Your task to perform on an android device: Search for a new highlighter Image 0: 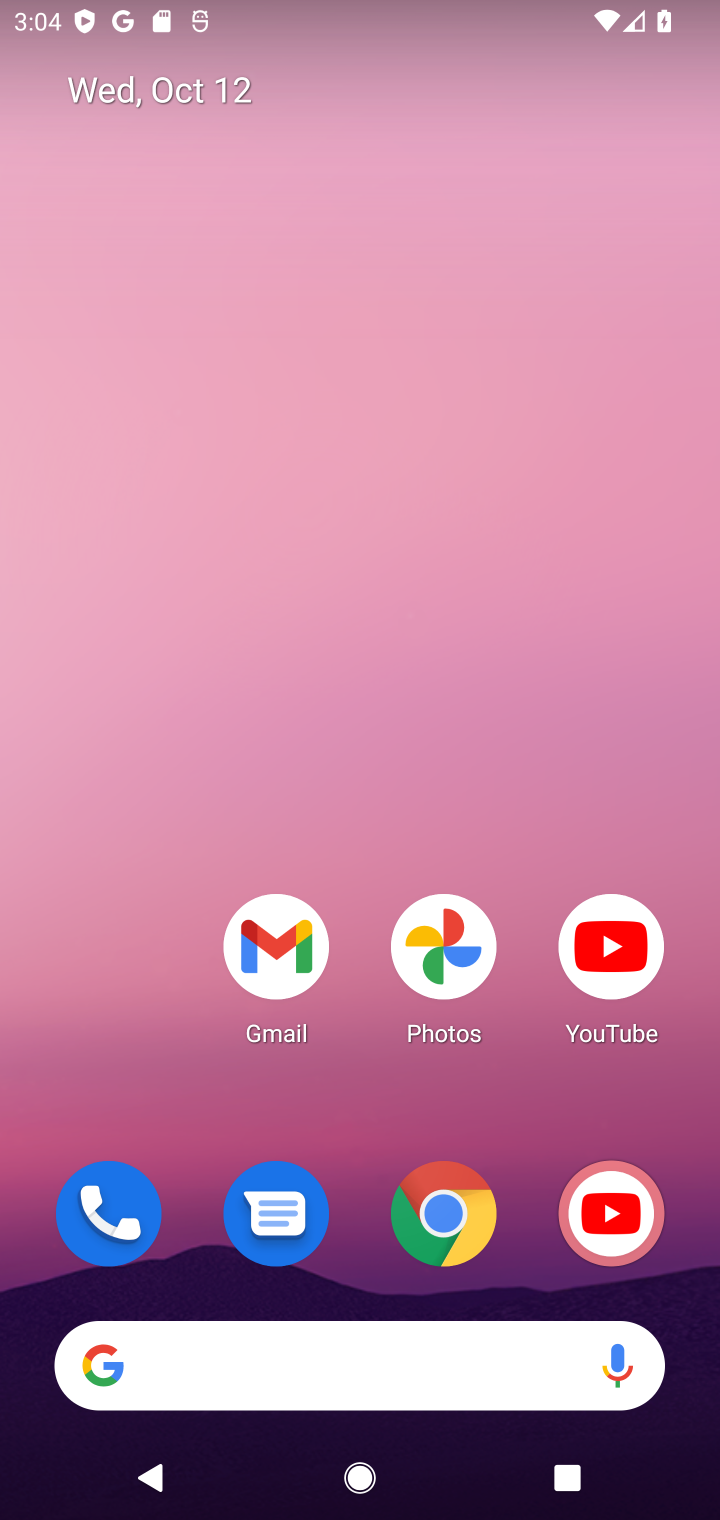
Step 0: click (360, 1393)
Your task to perform on an android device: Search for a new highlighter Image 1: 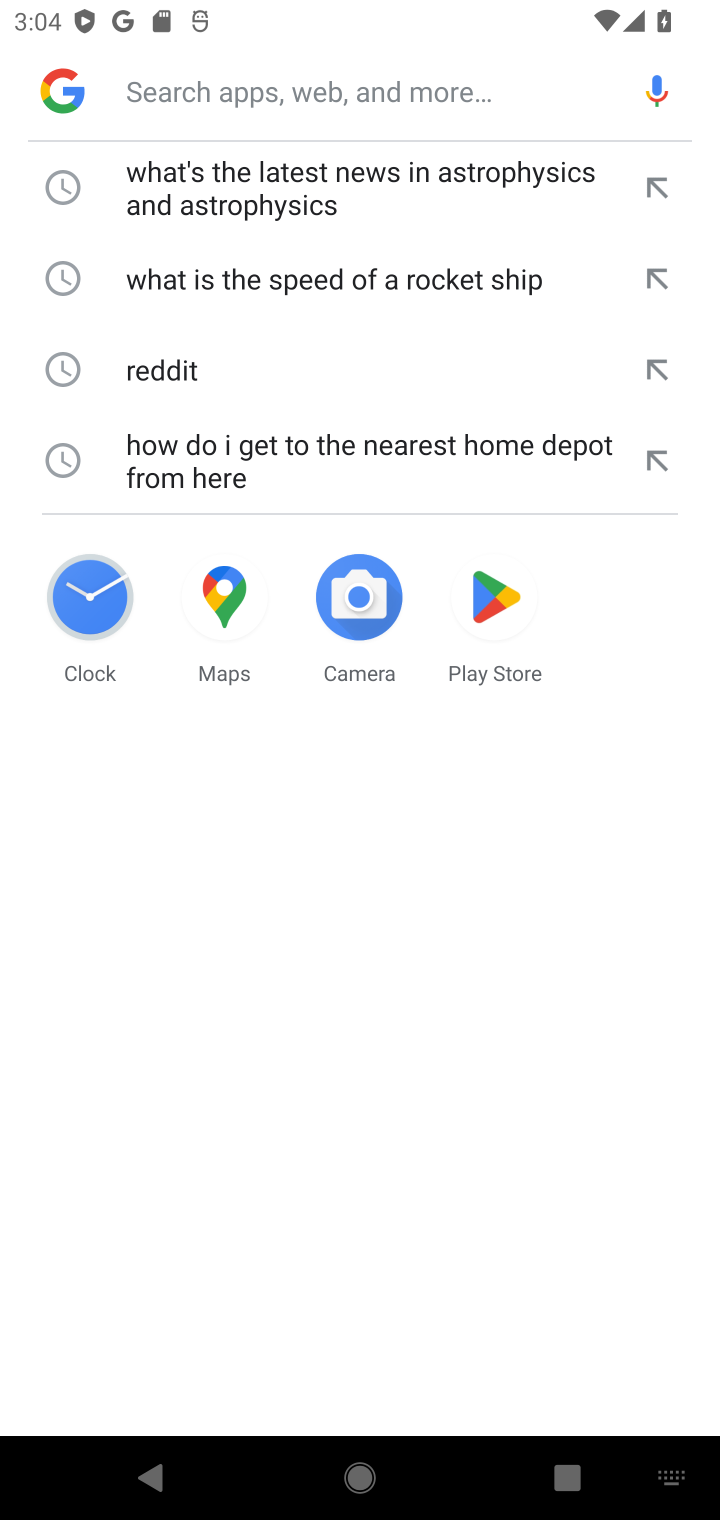
Step 1: click (172, 101)
Your task to perform on an android device: Search for a new highlighter Image 2: 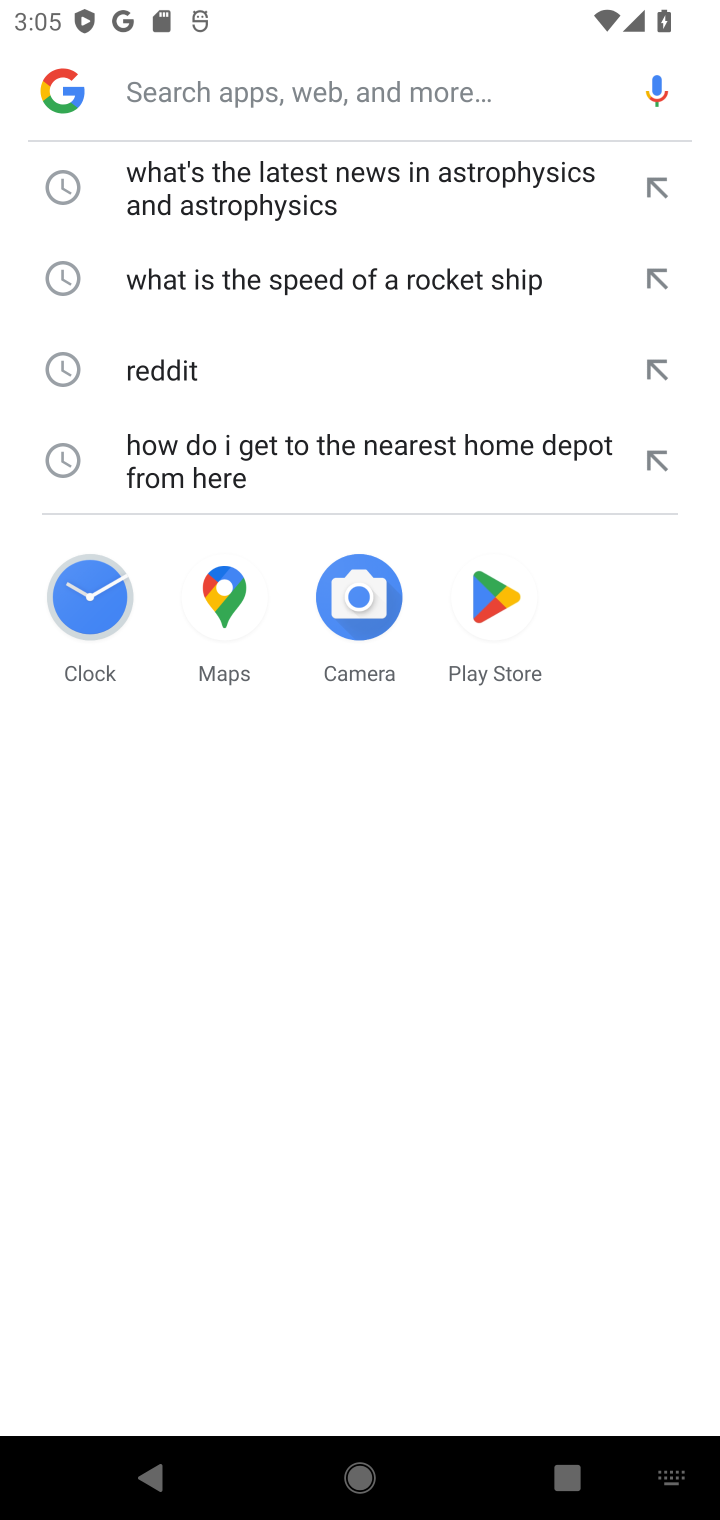
Step 2: type "new highlighter"
Your task to perform on an android device: Search for a new highlighter Image 3: 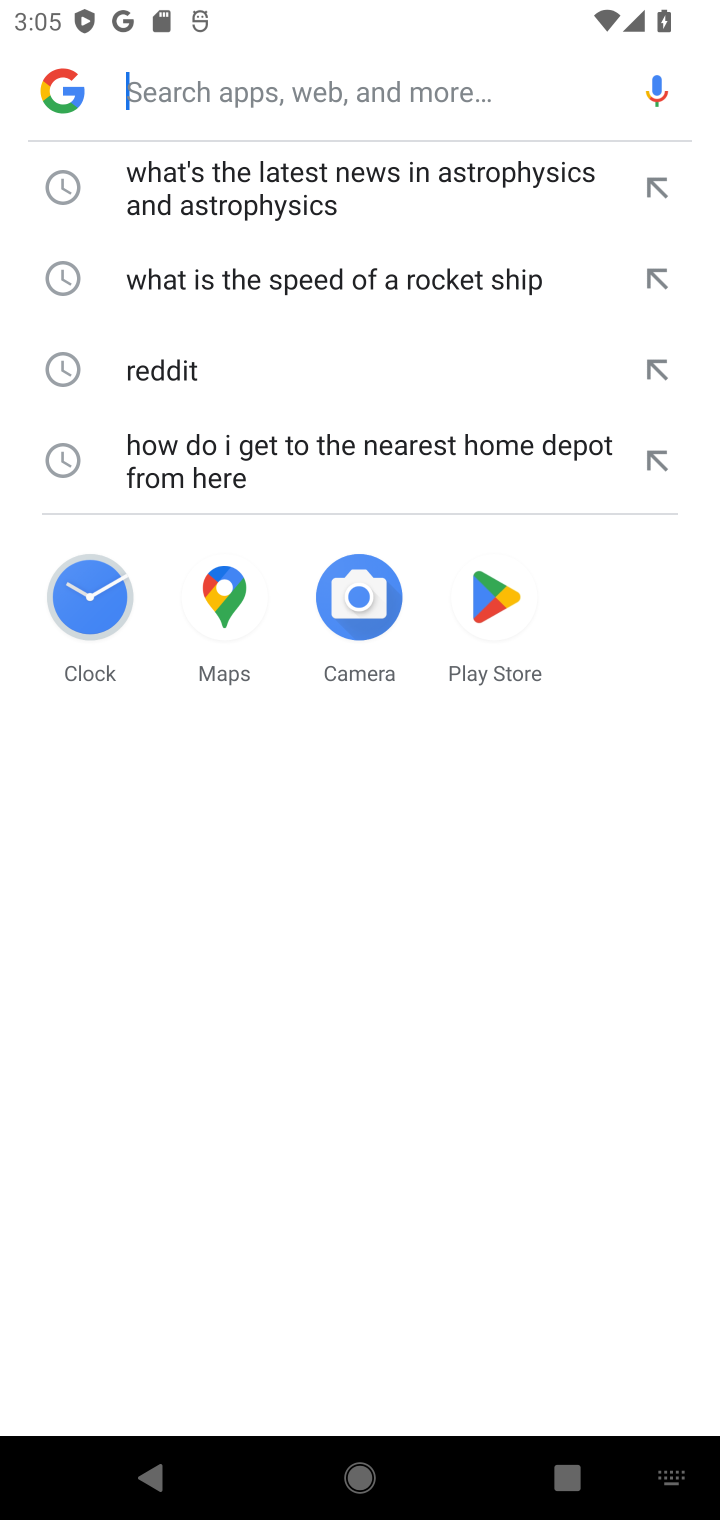
Step 3: click (314, 1044)
Your task to perform on an android device: Search for a new highlighter Image 4: 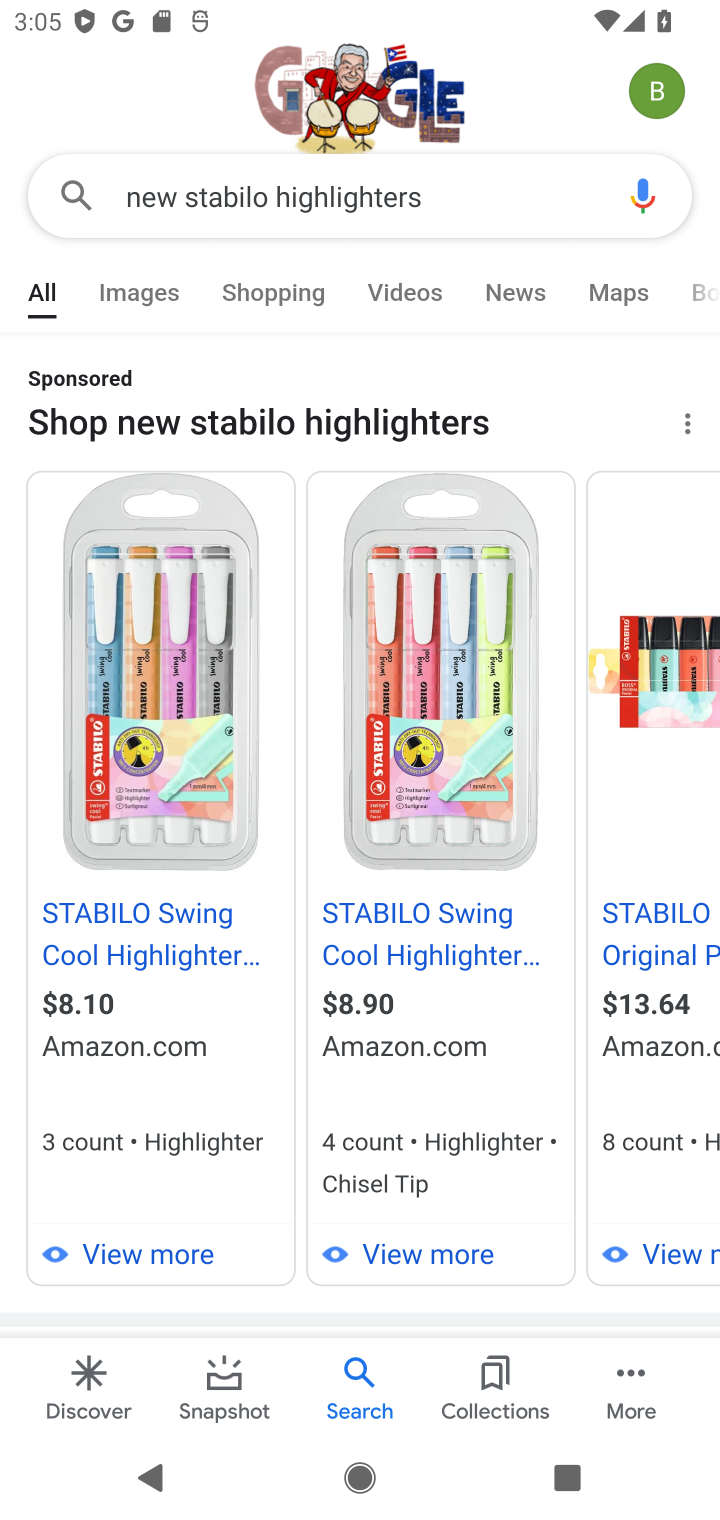
Step 4: task complete